Your task to perform on an android device: turn off data saver in the chrome app Image 0: 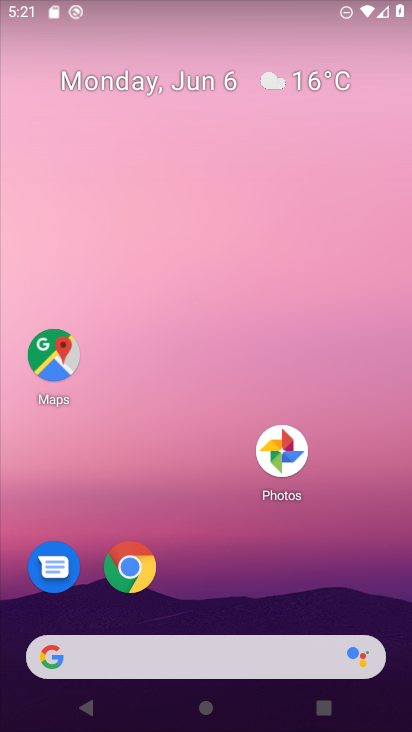
Step 0: click (261, 124)
Your task to perform on an android device: turn off data saver in the chrome app Image 1: 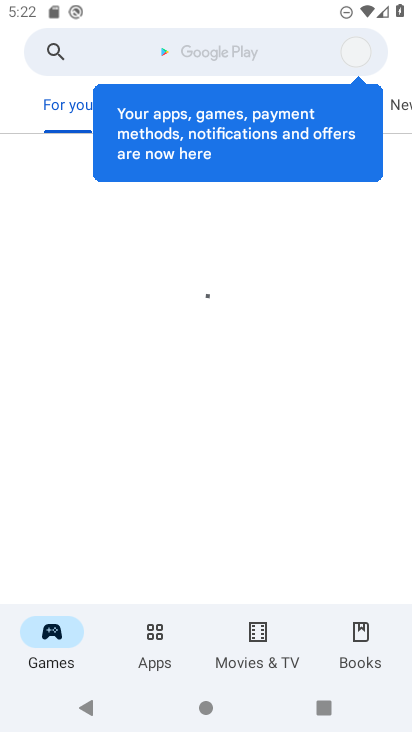
Step 1: press back button
Your task to perform on an android device: turn off data saver in the chrome app Image 2: 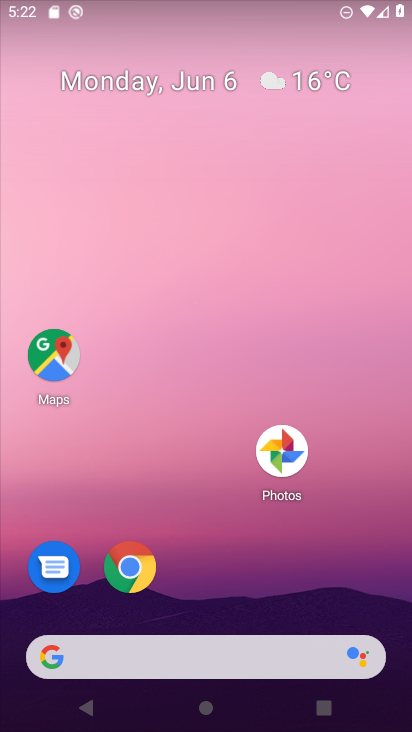
Step 2: drag from (246, 687) to (255, 345)
Your task to perform on an android device: turn off data saver in the chrome app Image 3: 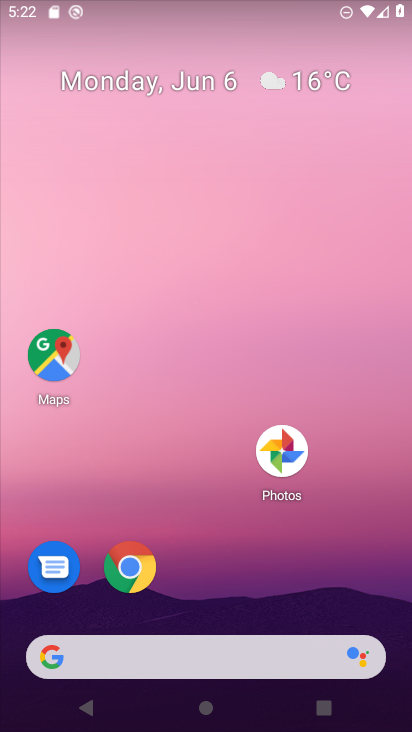
Step 3: drag from (258, 642) to (173, 123)
Your task to perform on an android device: turn off data saver in the chrome app Image 4: 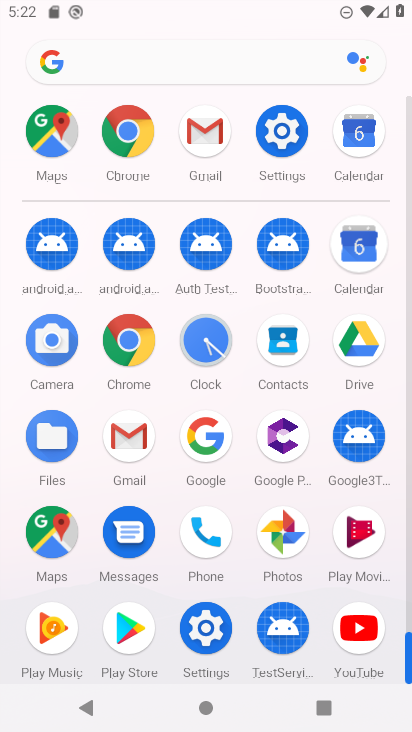
Step 4: click (128, 134)
Your task to perform on an android device: turn off data saver in the chrome app Image 5: 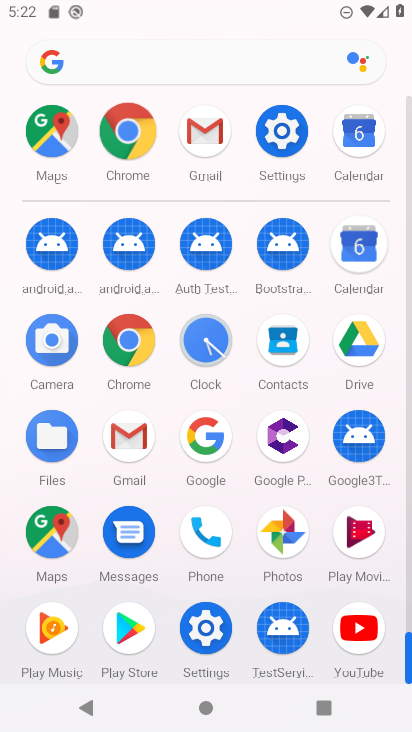
Step 5: click (128, 134)
Your task to perform on an android device: turn off data saver in the chrome app Image 6: 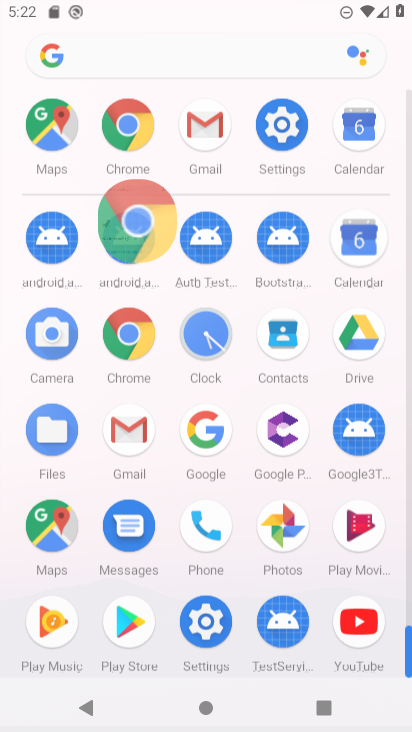
Step 6: click (128, 134)
Your task to perform on an android device: turn off data saver in the chrome app Image 7: 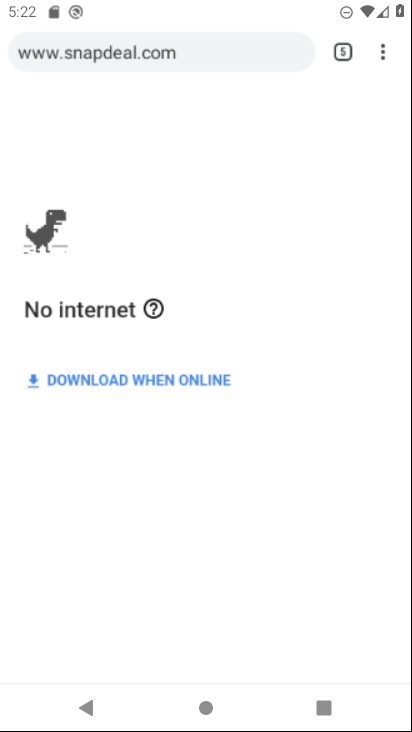
Step 7: click (128, 134)
Your task to perform on an android device: turn off data saver in the chrome app Image 8: 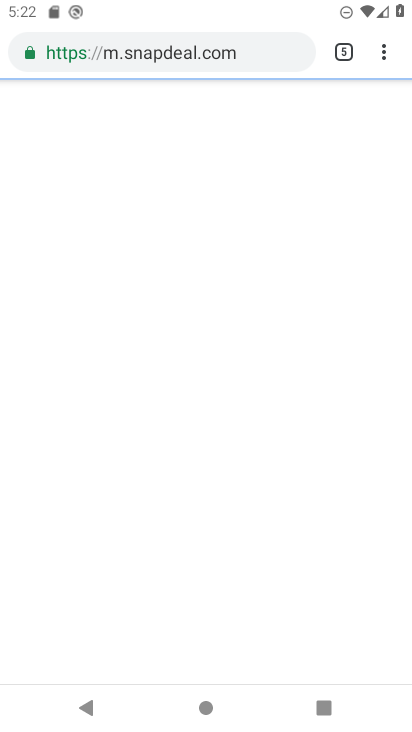
Step 8: press back button
Your task to perform on an android device: turn off data saver in the chrome app Image 9: 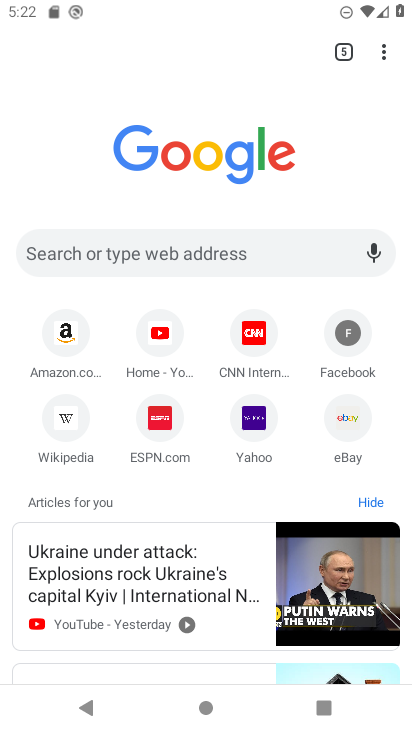
Step 9: drag from (382, 56) to (184, 439)
Your task to perform on an android device: turn off data saver in the chrome app Image 10: 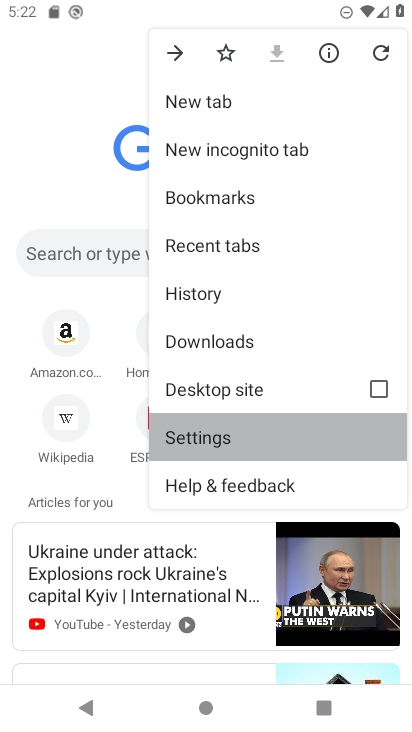
Step 10: click (184, 437)
Your task to perform on an android device: turn off data saver in the chrome app Image 11: 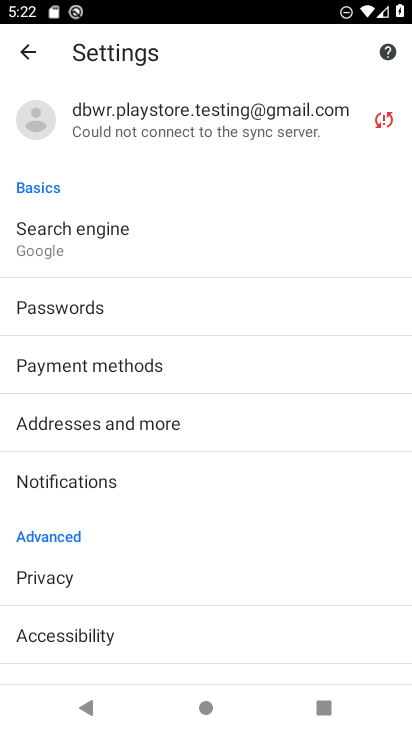
Step 11: drag from (121, 549) to (56, 266)
Your task to perform on an android device: turn off data saver in the chrome app Image 12: 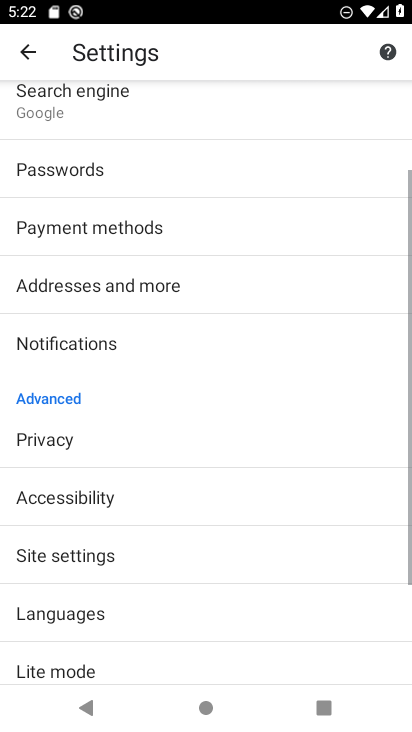
Step 12: drag from (131, 476) to (84, 199)
Your task to perform on an android device: turn off data saver in the chrome app Image 13: 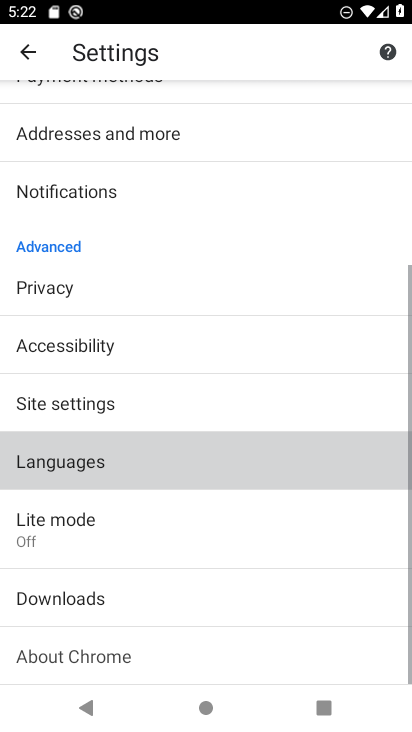
Step 13: drag from (104, 468) to (89, 223)
Your task to perform on an android device: turn off data saver in the chrome app Image 14: 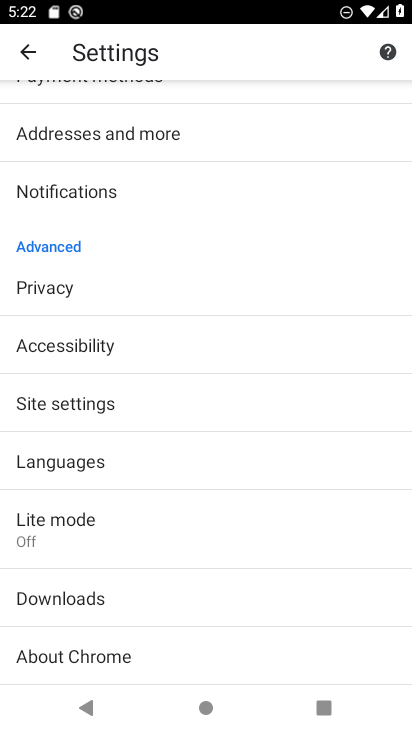
Step 14: click (60, 511)
Your task to perform on an android device: turn off data saver in the chrome app Image 15: 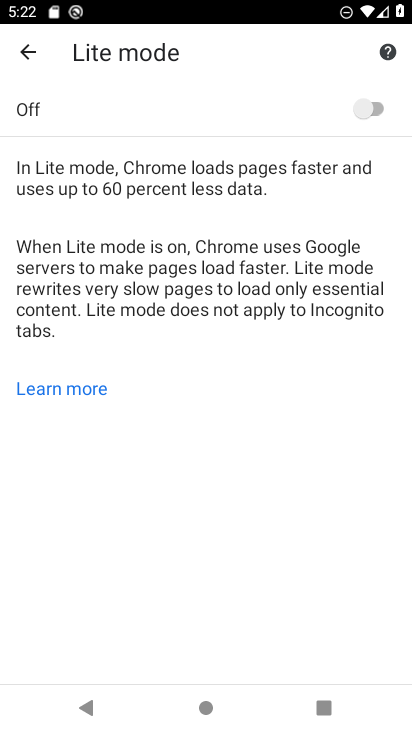
Step 15: task complete